Your task to perform on an android device: change your default location settings in chrome Image 0: 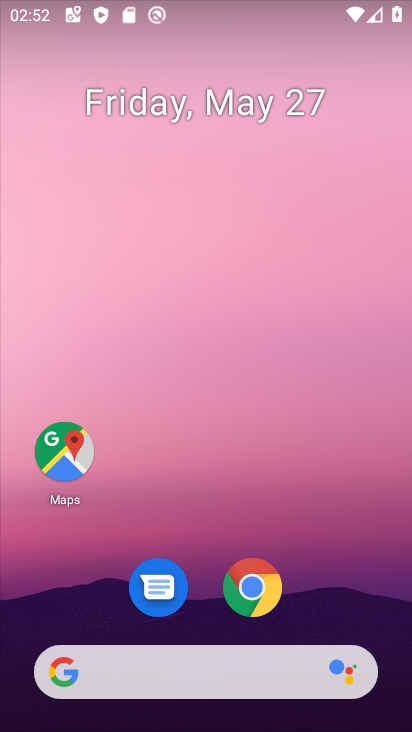
Step 0: press home button
Your task to perform on an android device: change your default location settings in chrome Image 1: 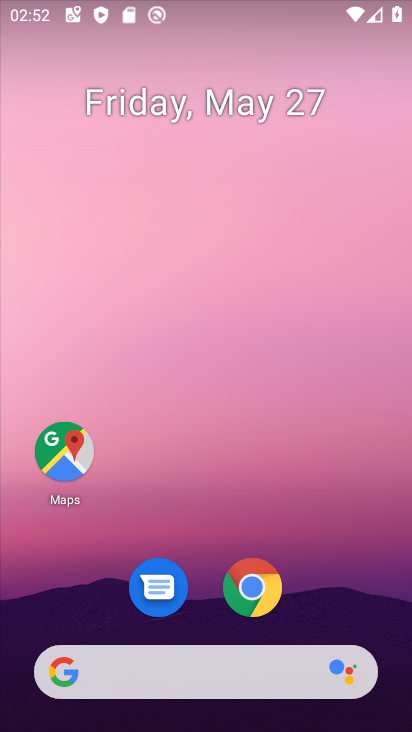
Step 1: click (262, 593)
Your task to perform on an android device: change your default location settings in chrome Image 2: 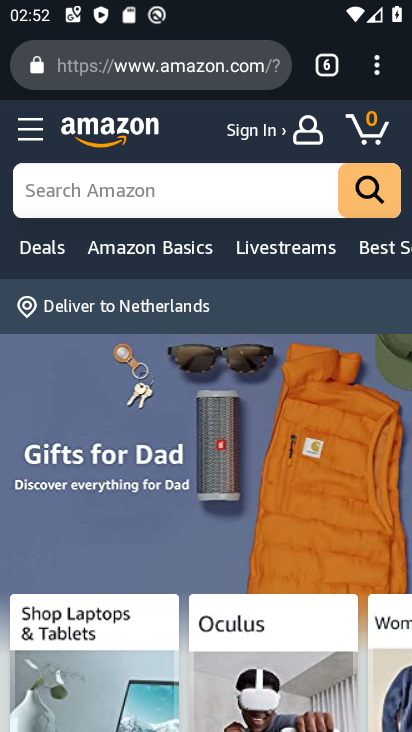
Step 2: drag from (380, 58) to (172, 636)
Your task to perform on an android device: change your default location settings in chrome Image 3: 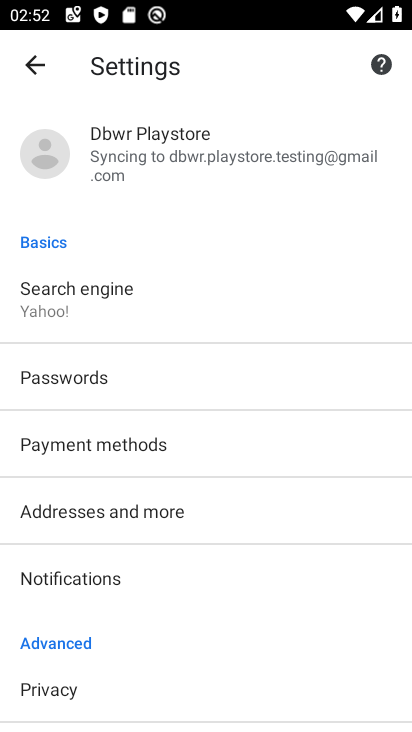
Step 3: drag from (199, 640) to (196, 392)
Your task to perform on an android device: change your default location settings in chrome Image 4: 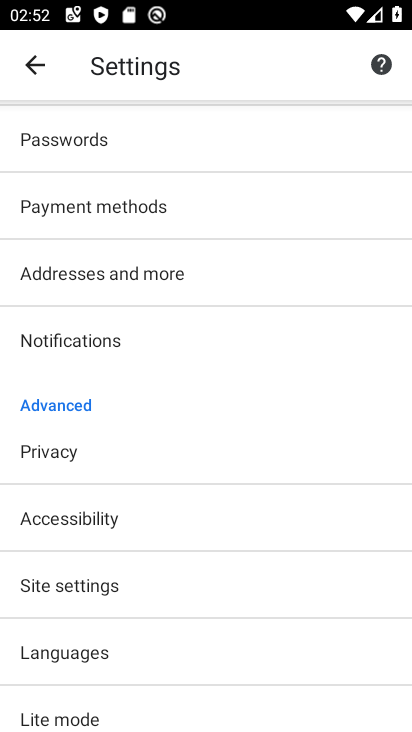
Step 4: click (65, 595)
Your task to perform on an android device: change your default location settings in chrome Image 5: 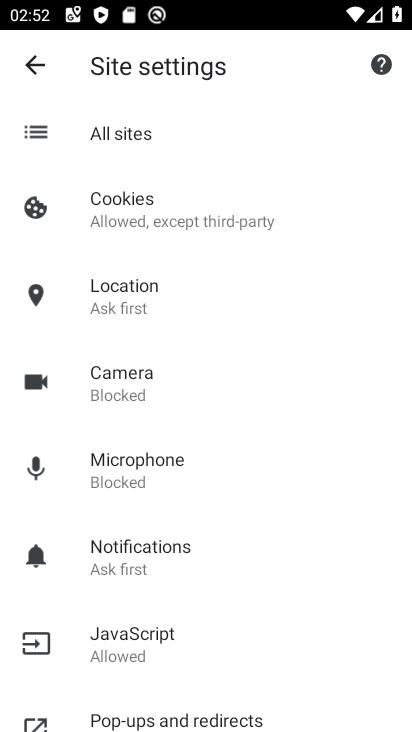
Step 5: click (122, 288)
Your task to perform on an android device: change your default location settings in chrome Image 6: 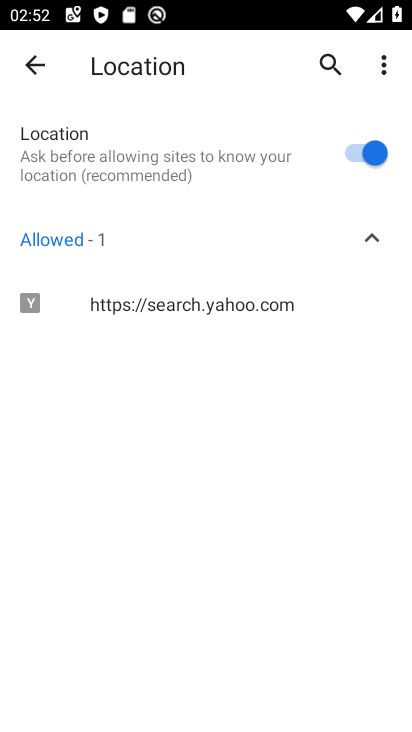
Step 6: click (382, 152)
Your task to perform on an android device: change your default location settings in chrome Image 7: 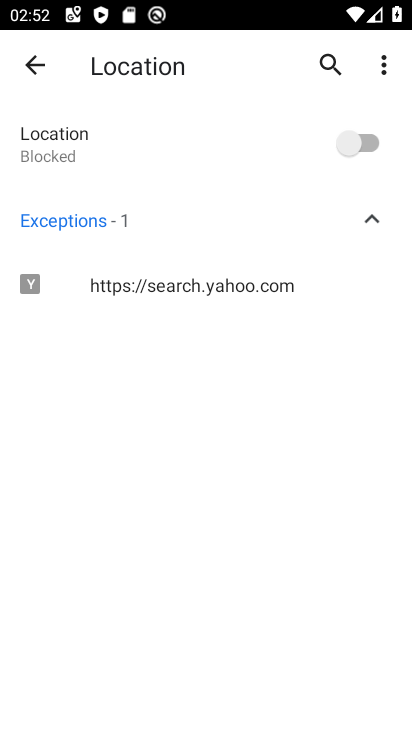
Step 7: task complete